Your task to perform on an android device: move an email to a new category in the gmail app Image 0: 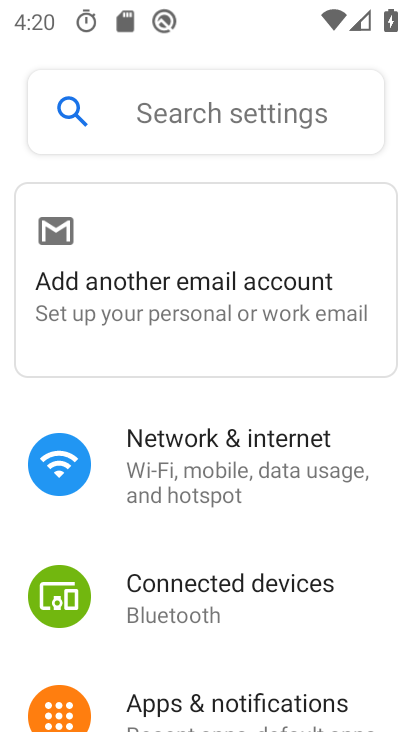
Step 0: drag from (271, 674) to (280, 230)
Your task to perform on an android device: move an email to a new category in the gmail app Image 1: 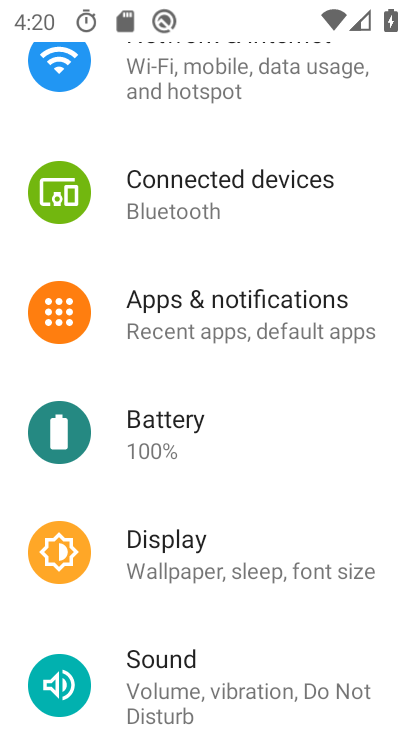
Step 1: press home button
Your task to perform on an android device: move an email to a new category in the gmail app Image 2: 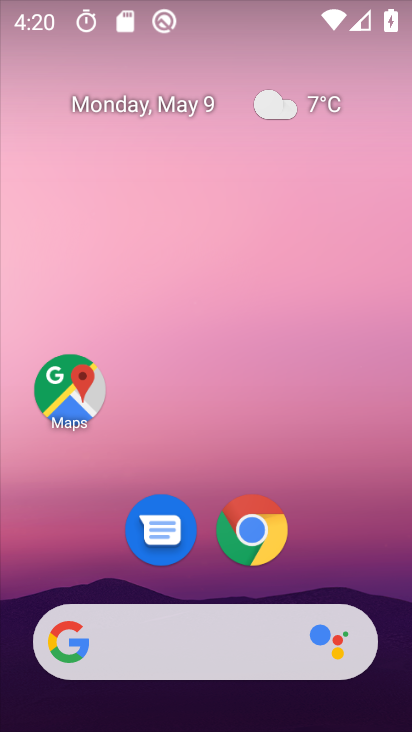
Step 2: drag from (258, 541) to (358, 19)
Your task to perform on an android device: move an email to a new category in the gmail app Image 3: 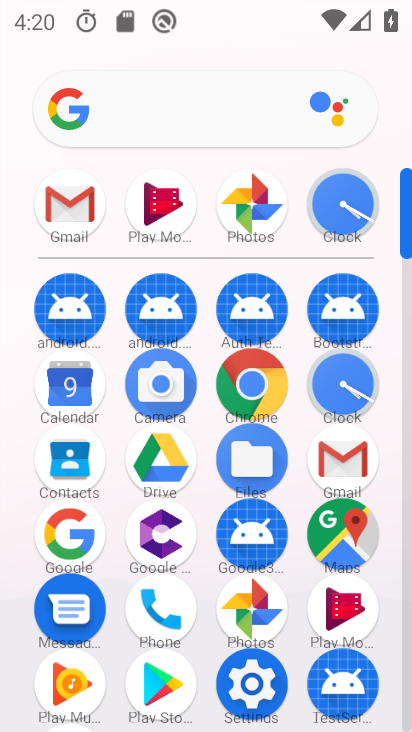
Step 3: click (77, 196)
Your task to perform on an android device: move an email to a new category in the gmail app Image 4: 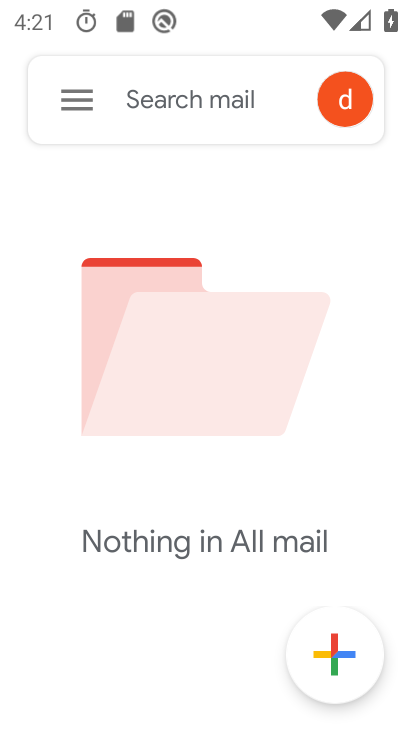
Step 4: task complete